Your task to perform on an android device: Search for custom t-shirts on Etsy. Image 0: 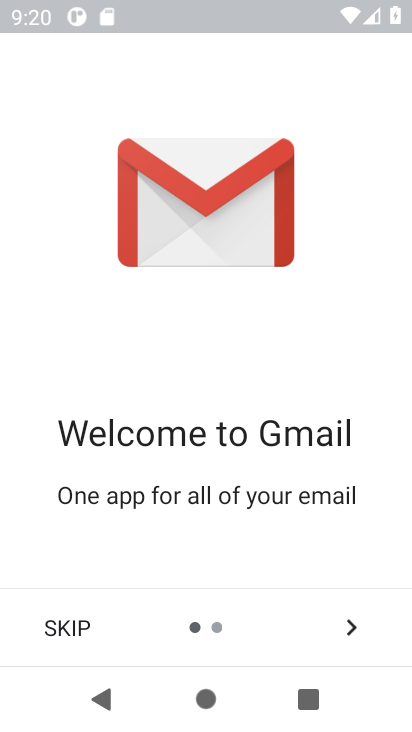
Step 0: press home button
Your task to perform on an android device: Search for custom t-shirts on Etsy. Image 1: 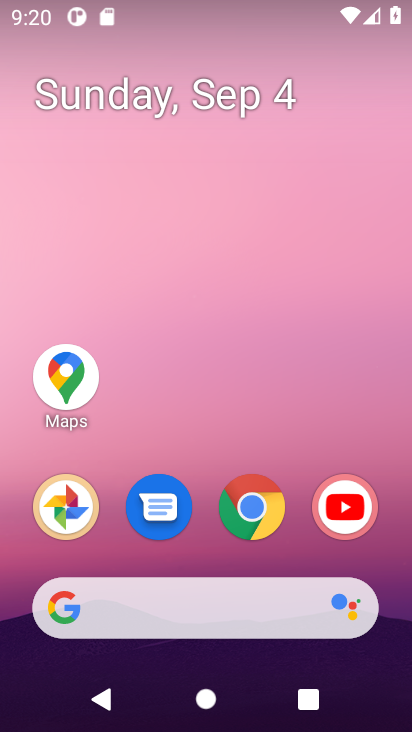
Step 1: click (254, 509)
Your task to perform on an android device: Search for custom t-shirts on Etsy. Image 2: 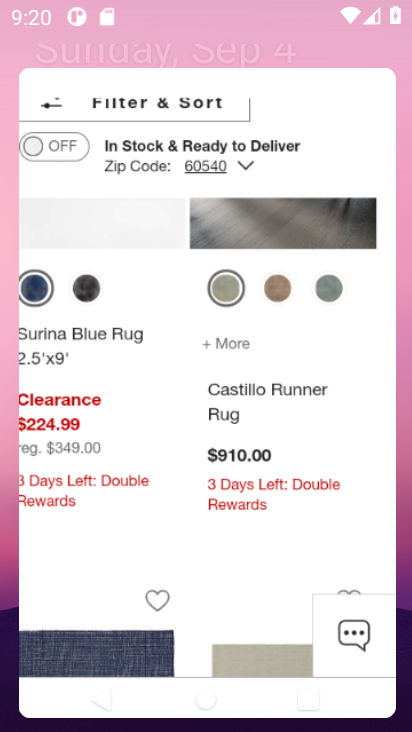
Step 2: click (182, 514)
Your task to perform on an android device: Search for custom t-shirts on Etsy. Image 3: 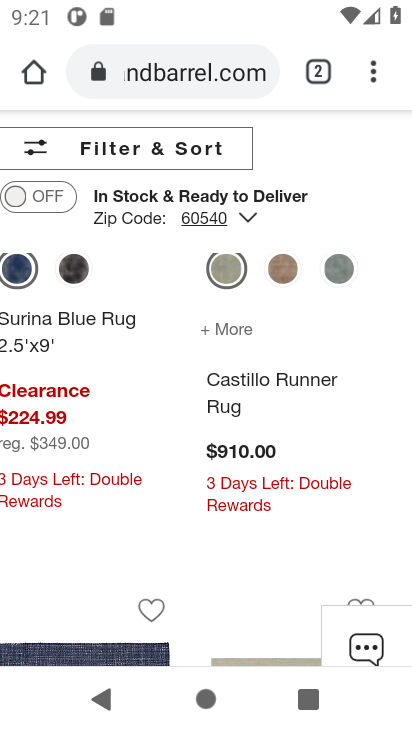
Step 3: click (162, 50)
Your task to perform on an android device: Search for custom t-shirts on Etsy. Image 4: 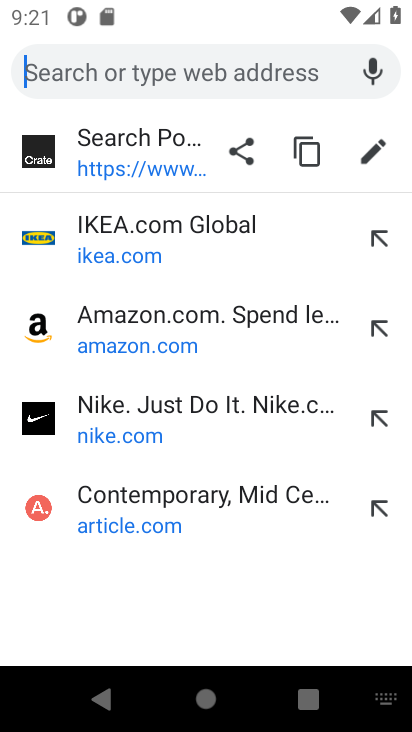
Step 4: type "Etsy"
Your task to perform on an android device: Search for custom t-shirts on Etsy. Image 5: 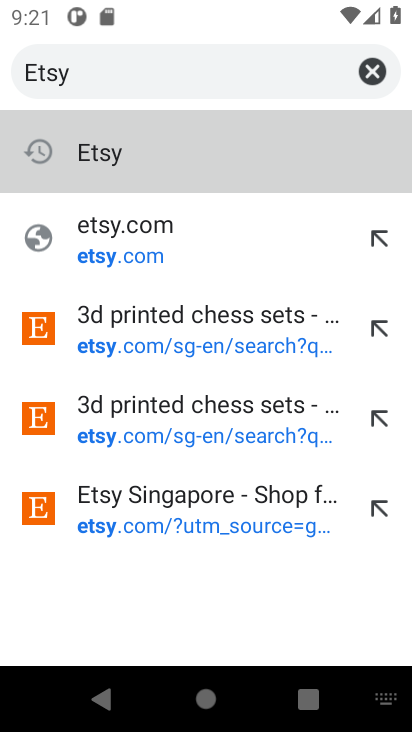
Step 5: click (120, 217)
Your task to perform on an android device: Search for custom t-shirts on Etsy. Image 6: 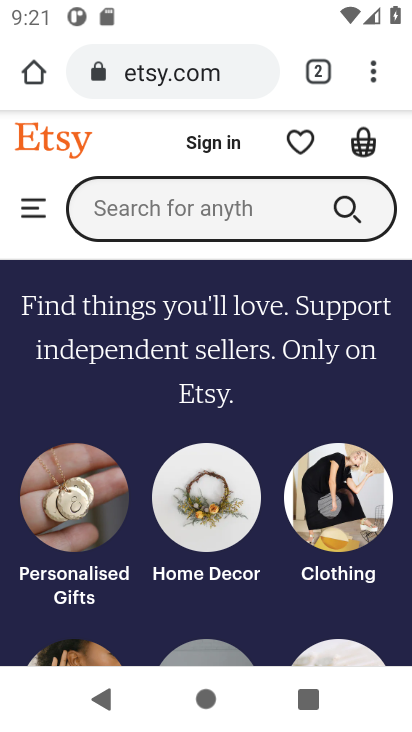
Step 6: click (127, 205)
Your task to perform on an android device: Search for custom t-shirts on Etsy. Image 7: 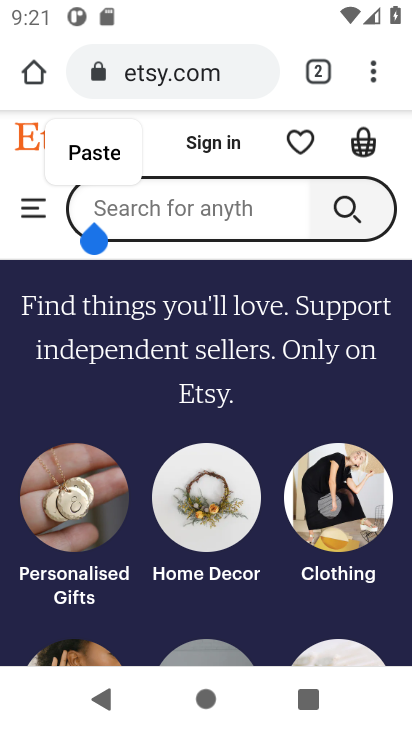
Step 7: type "custom t-shirts"
Your task to perform on an android device: Search for custom t-shirts on Etsy. Image 8: 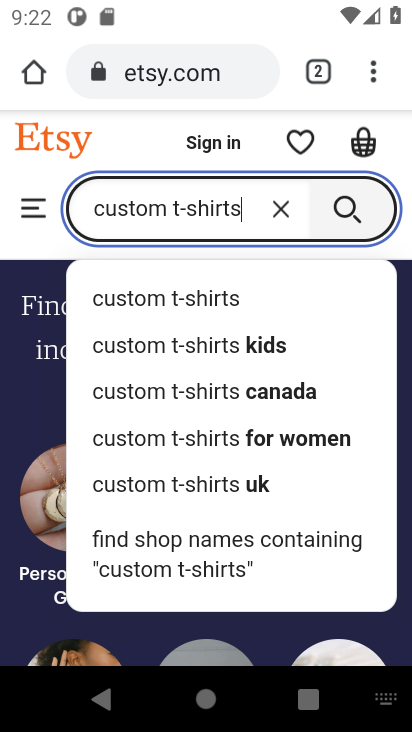
Step 8: click (344, 207)
Your task to perform on an android device: Search for custom t-shirts on Etsy. Image 9: 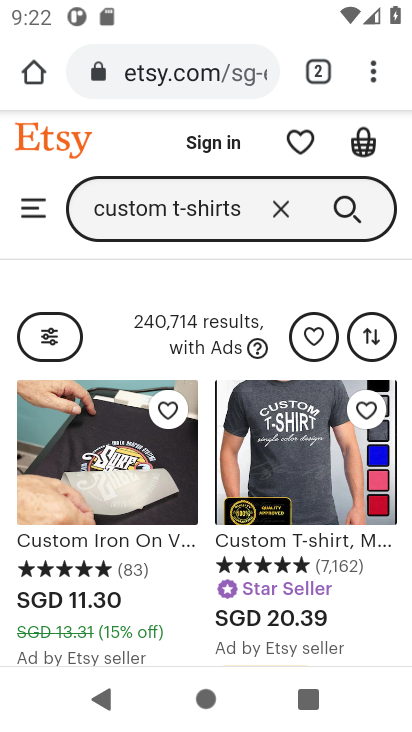
Step 9: drag from (205, 458) to (206, 328)
Your task to perform on an android device: Search for custom t-shirts on Etsy. Image 10: 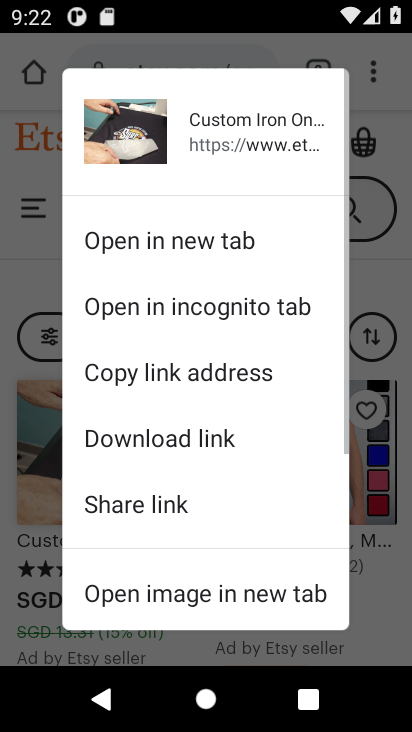
Step 10: click (36, 499)
Your task to perform on an android device: Search for custom t-shirts on Etsy. Image 11: 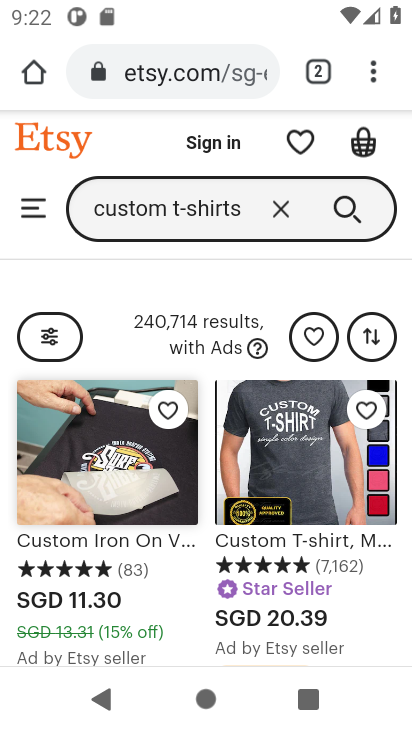
Step 11: drag from (206, 527) to (216, 209)
Your task to perform on an android device: Search for custom t-shirts on Etsy. Image 12: 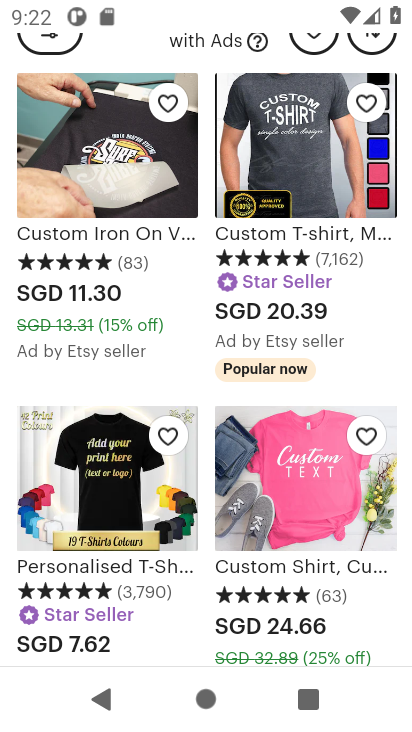
Step 12: drag from (206, 542) to (204, 240)
Your task to perform on an android device: Search for custom t-shirts on Etsy. Image 13: 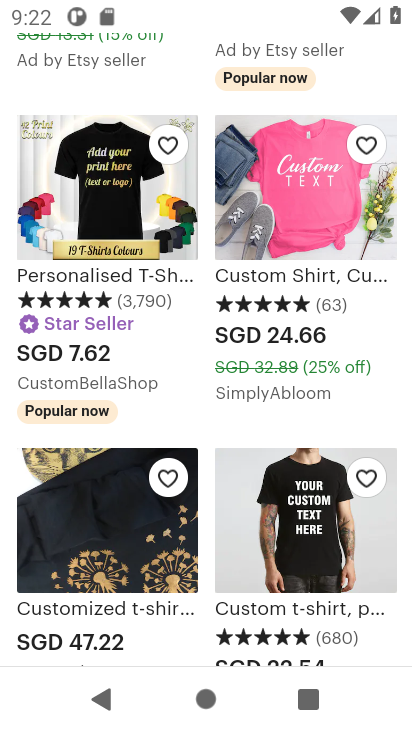
Step 13: drag from (207, 311) to (206, 259)
Your task to perform on an android device: Search for custom t-shirts on Etsy. Image 14: 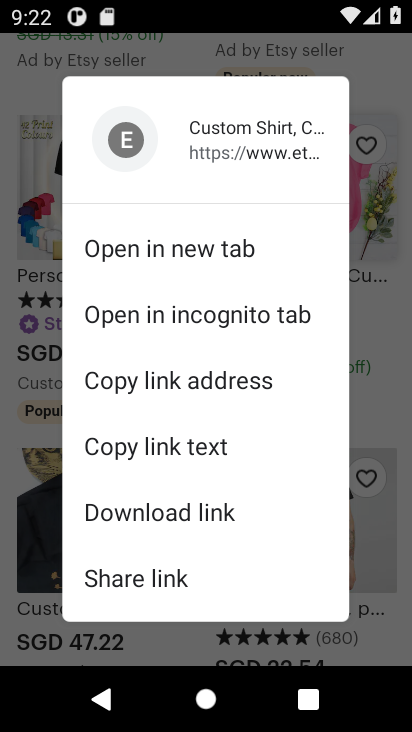
Step 14: click (34, 460)
Your task to perform on an android device: Search for custom t-shirts on Etsy. Image 15: 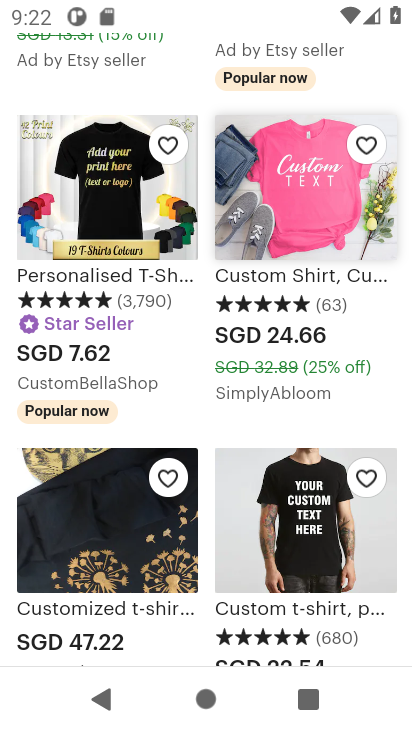
Step 15: drag from (214, 566) to (191, 134)
Your task to perform on an android device: Search for custom t-shirts on Etsy. Image 16: 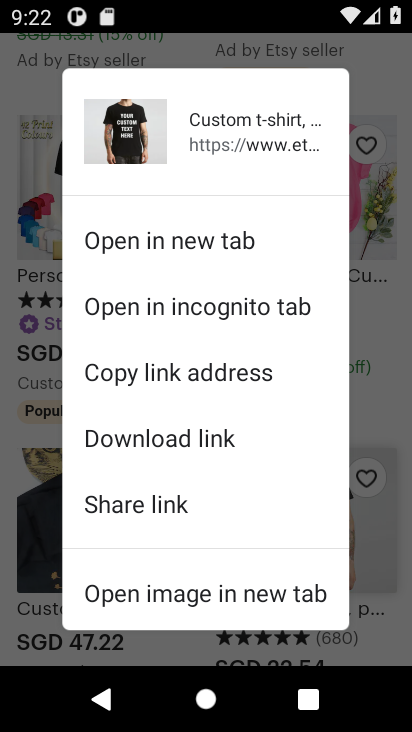
Step 16: click (372, 449)
Your task to perform on an android device: Search for custom t-shirts on Etsy. Image 17: 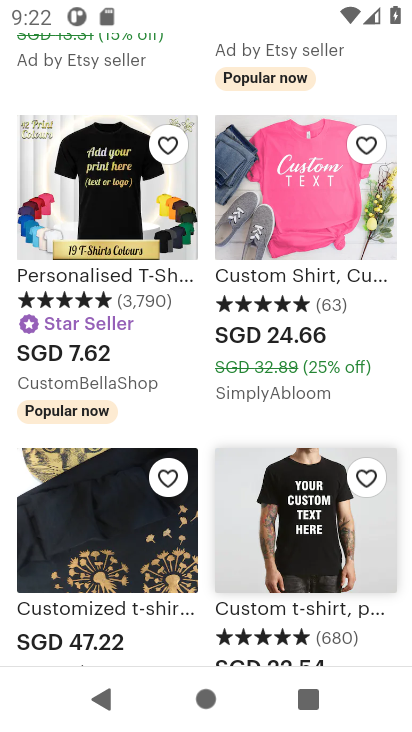
Step 17: task complete